Your task to perform on an android device: Look up the best rated headphones on Walmart. Image 0: 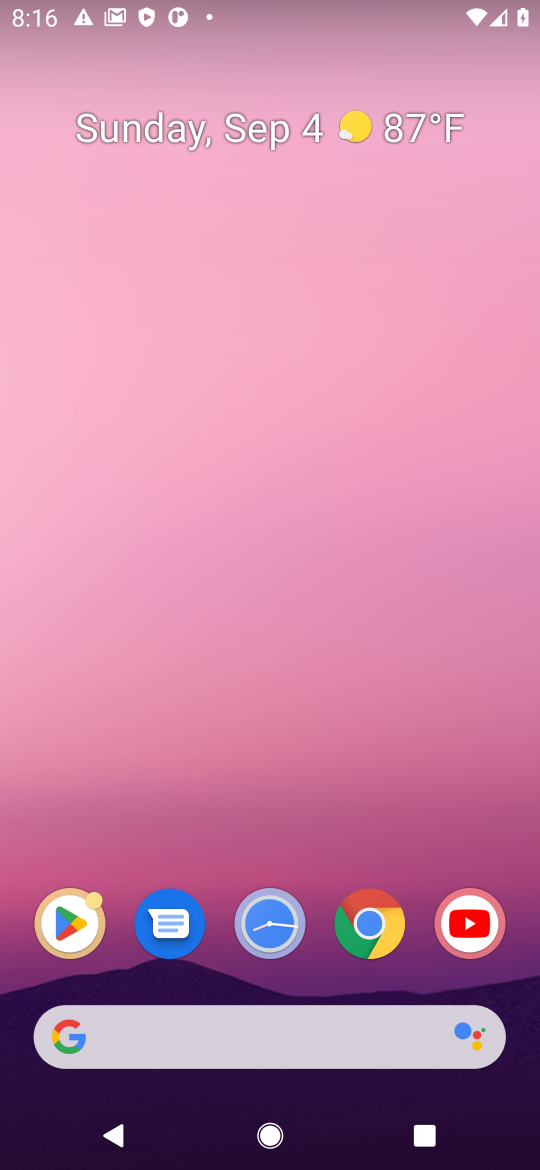
Step 0: press home button
Your task to perform on an android device: Look up the best rated headphones on Walmart. Image 1: 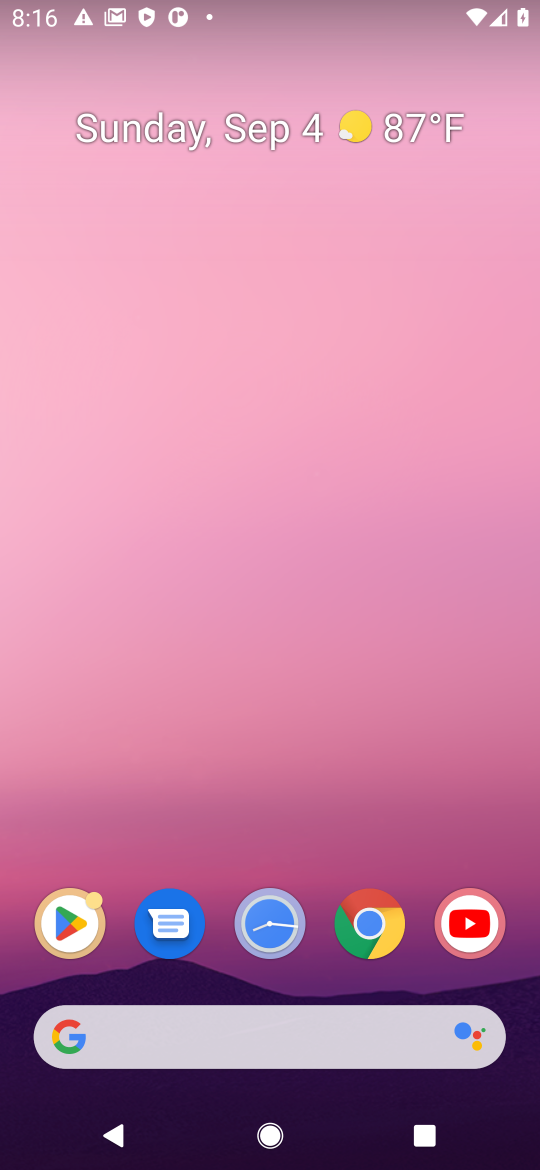
Step 1: click (406, 1038)
Your task to perform on an android device: Look up the best rated headphones on Walmart. Image 2: 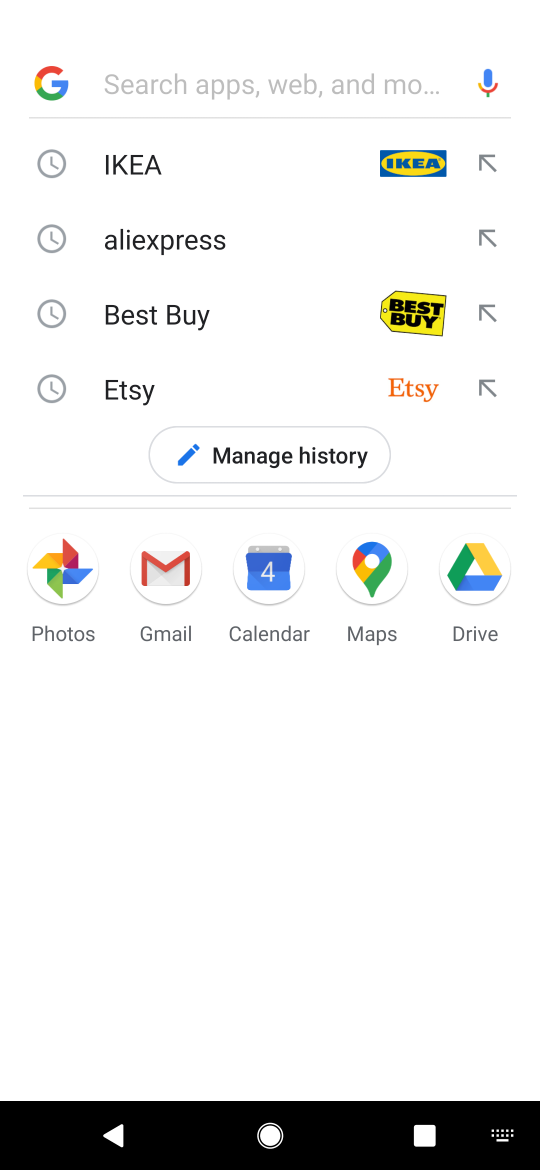
Step 2: press enter
Your task to perform on an android device: Look up the best rated headphones on Walmart. Image 3: 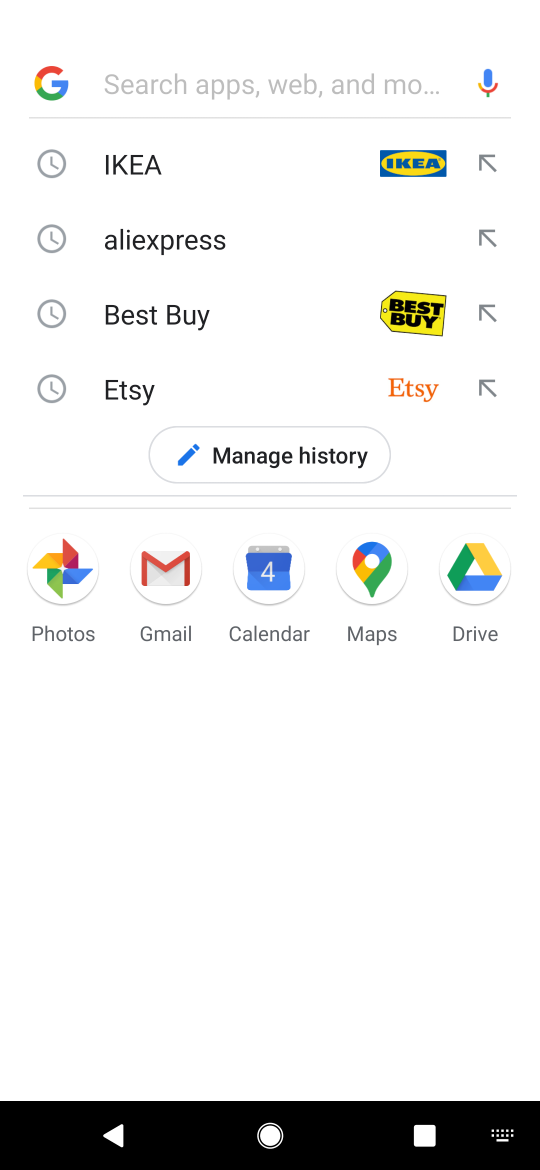
Step 3: type "walmart"
Your task to perform on an android device: Look up the best rated headphones on Walmart. Image 4: 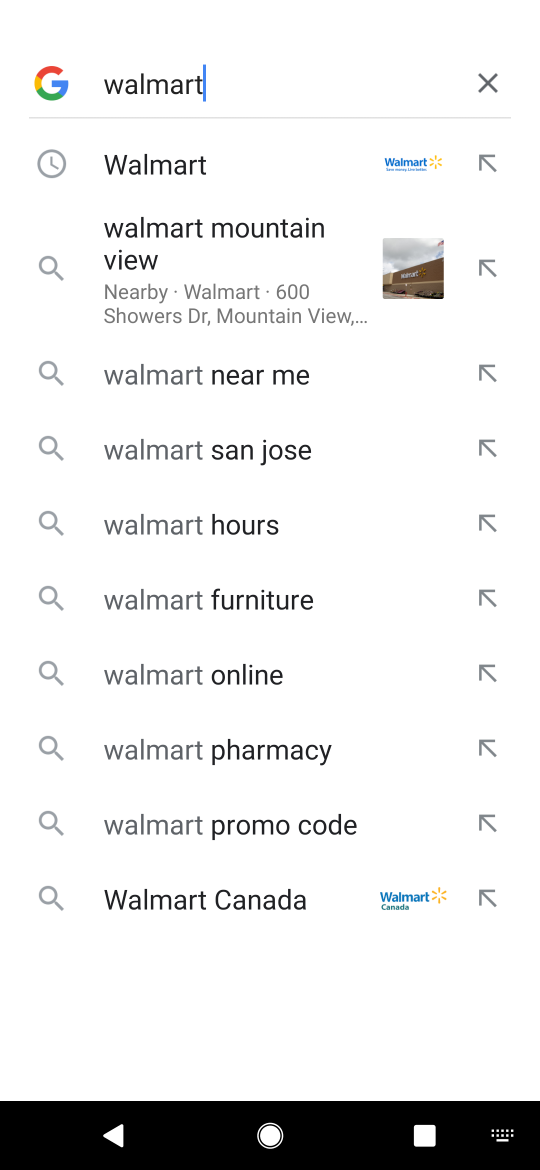
Step 4: click (227, 163)
Your task to perform on an android device: Look up the best rated headphones on Walmart. Image 5: 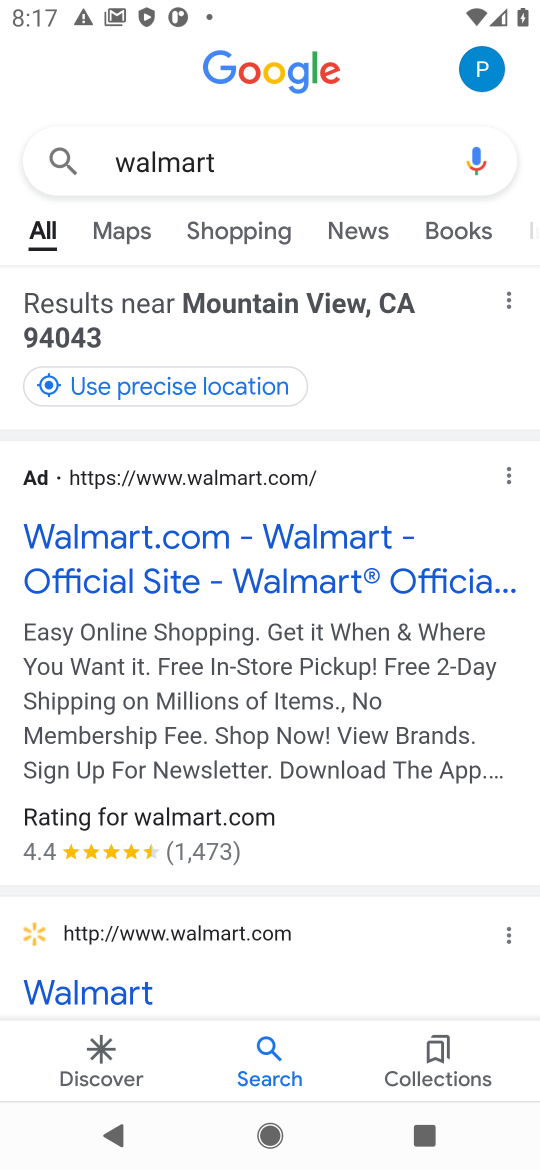
Step 5: click (269, 548)
Your task to perform on an android device: Look up the best rated headphones on Walmart. Image 6: 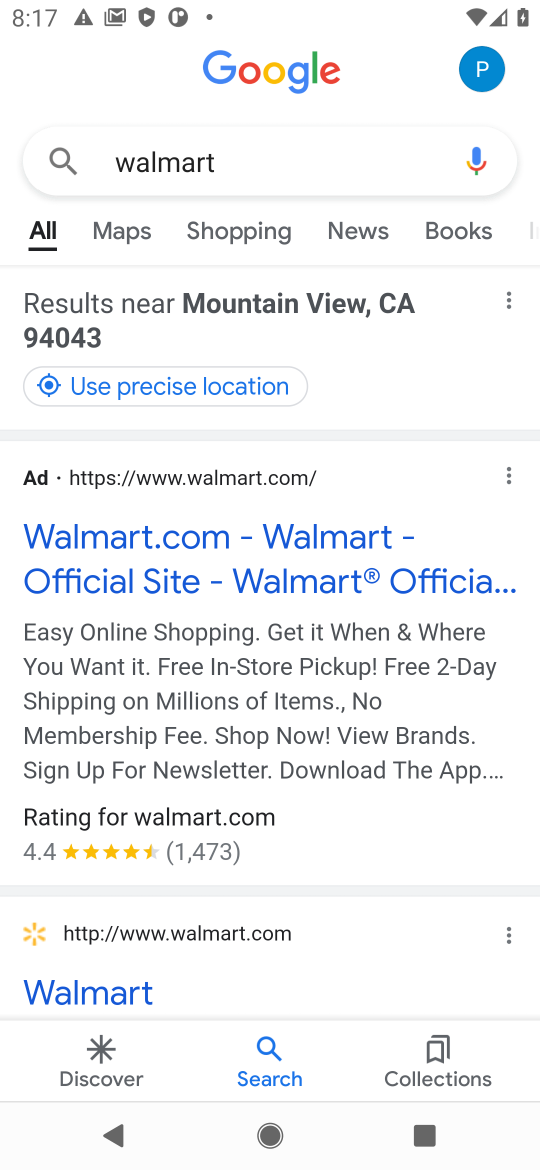
Step 6: click (269, 548)
Your task to perform on an android device: Look up the best rated headphones on Walmart. Image 7: 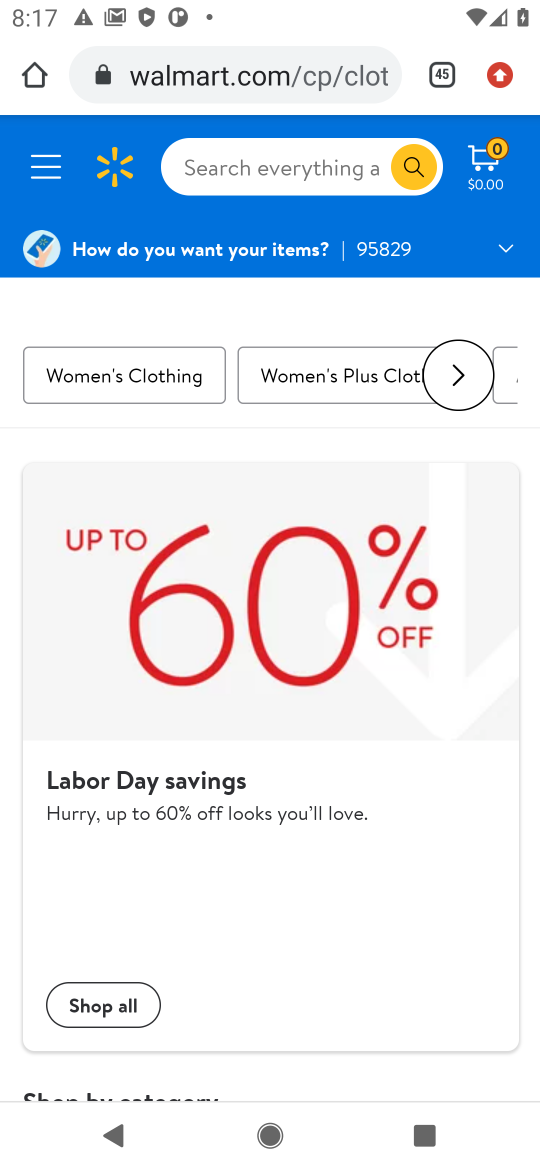
Step 7: click (266, 165)
Your task to perform on an android device: Look up the best rated headphones on Walmart. Image 8: 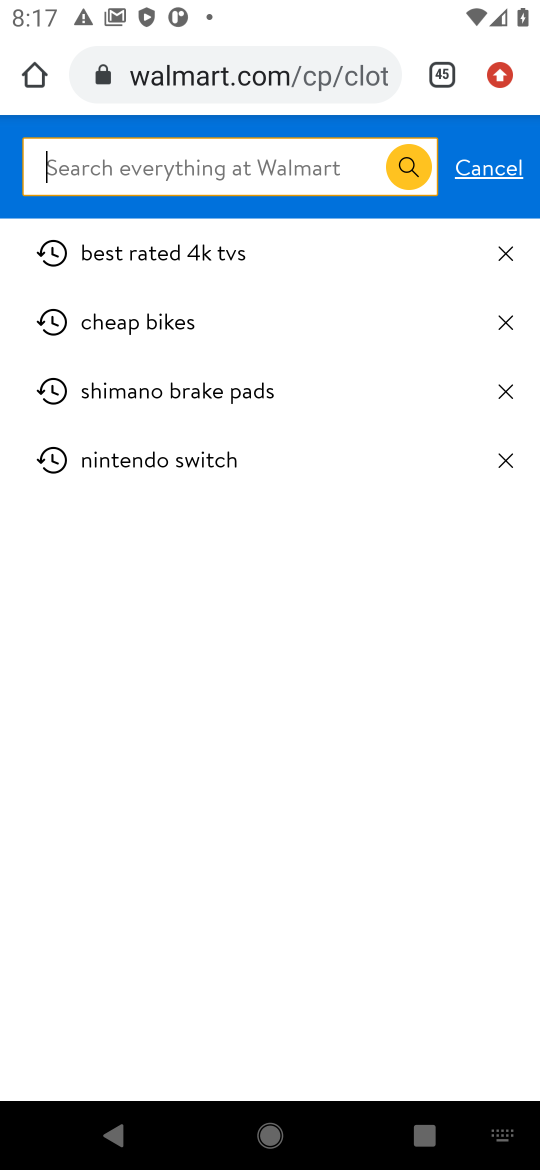
Step 8: press enter
Your task to perform on an android device: Look up the best rated headphones on Walmart. Image 9: 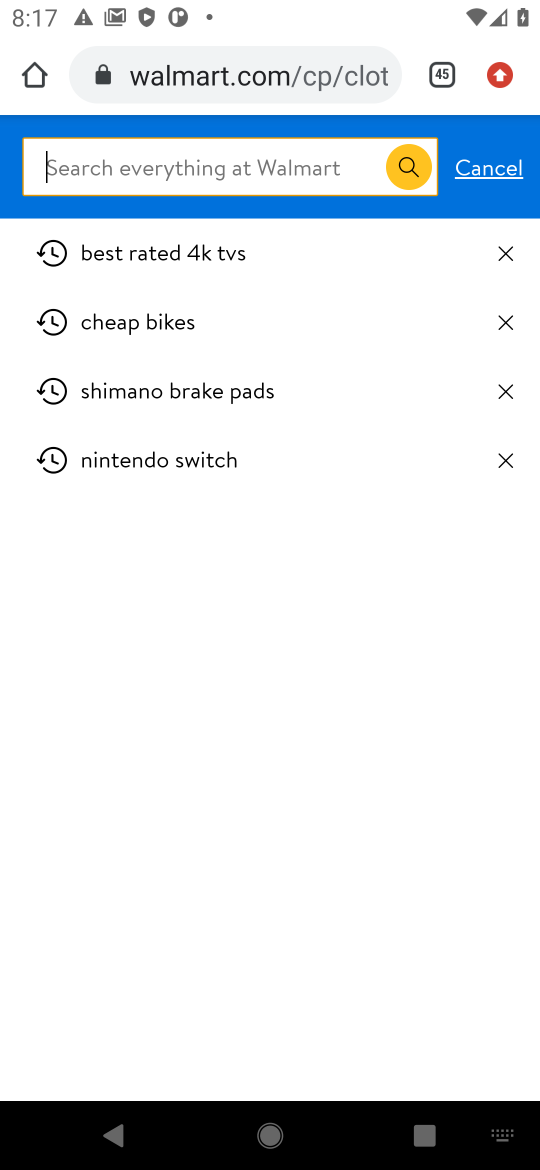
Step 9: type "best rated headphones"
Your task to perform on an android device: Look up the best rated headphones on Walmart. Image 10: 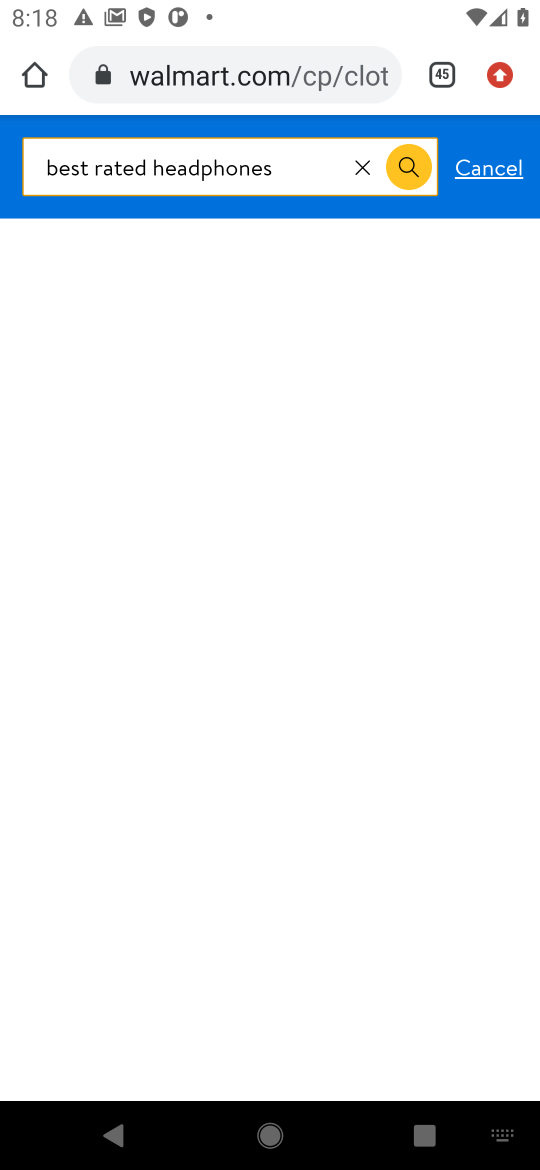
Step 10: click (413, 165)
Your task to perform on an android device: Look up the best rated headphones on Walmart. Image 11: 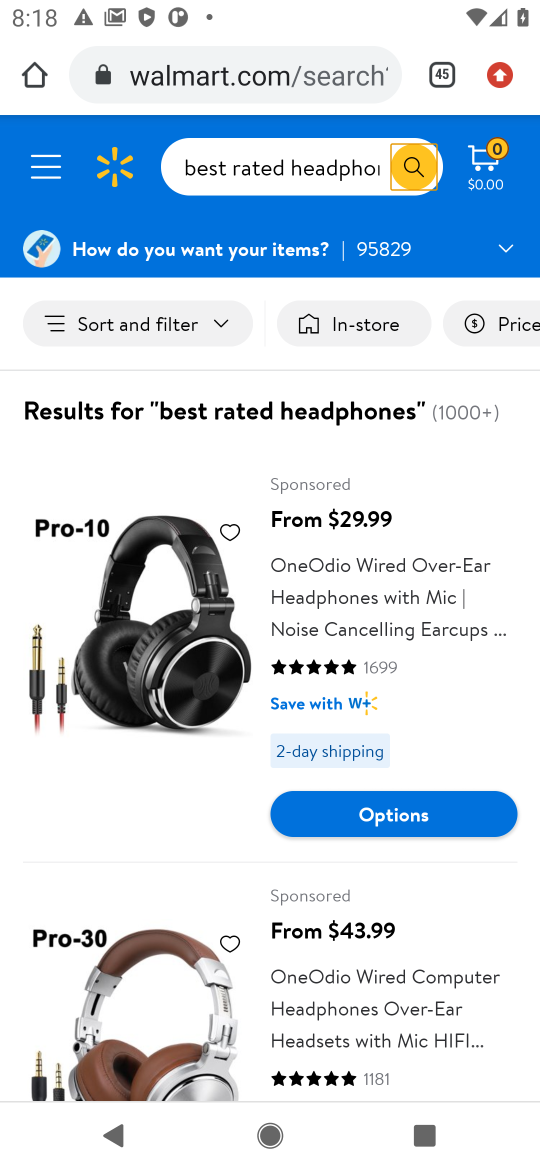
Step 11: task complete